Your task to perform on an android device: open chrome privacy settings Image 0: 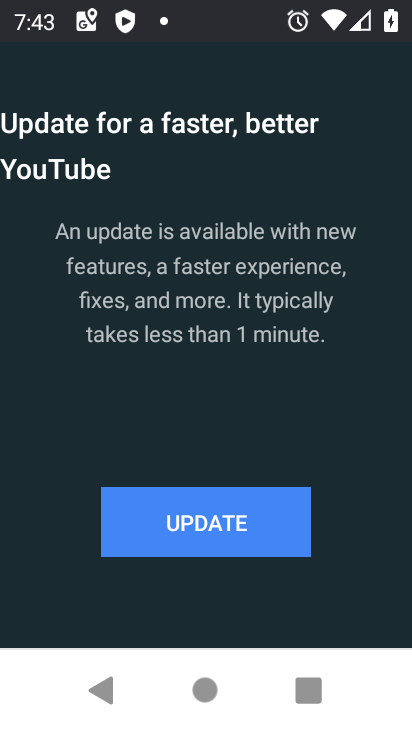
Step 0: press home button
Your task to perform on an android device: open chrome privacy settings Image 1: 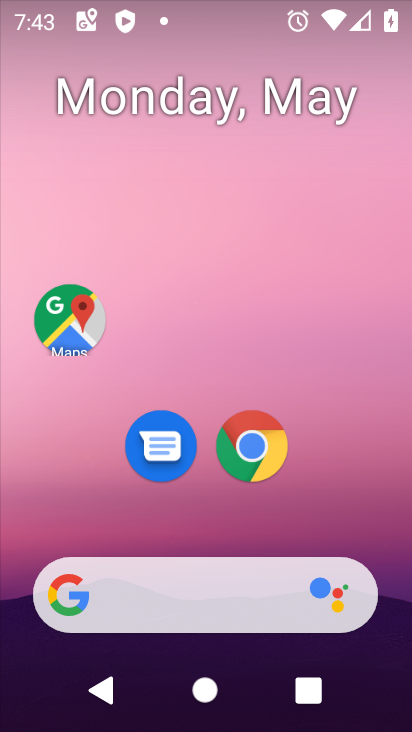
Step 1: click (261, 457)
Your task to perform on an android device: open chrome privacy settings Image 2: 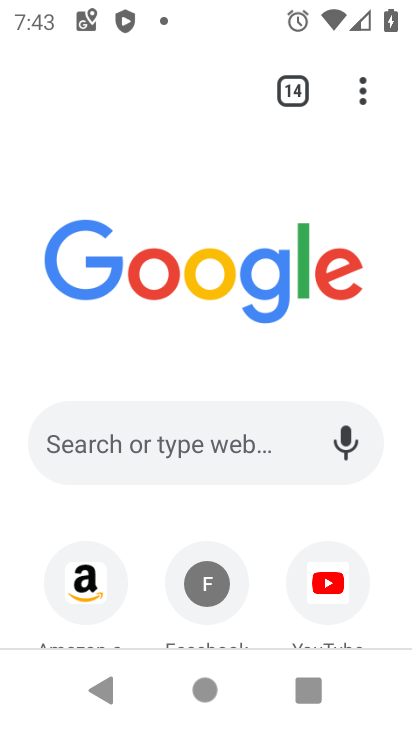
Step 2: click (361, 87)
Your task to perform on an android device: open chrome privacy settings Image 3: 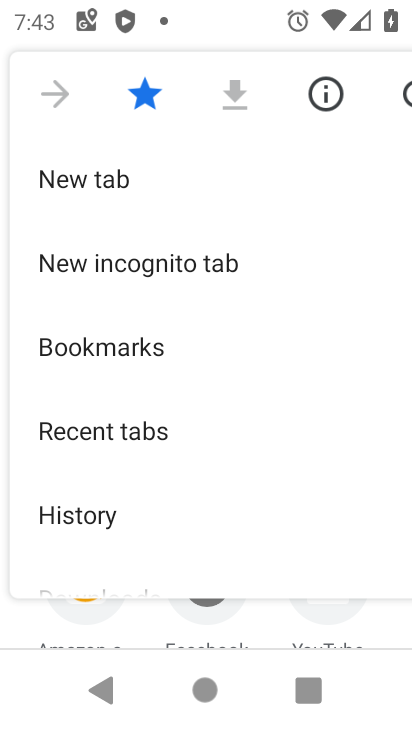
Step 3: drag from (236, 460) to (191, 139)
Your task to perform on an android device: open chrome privacy settings Image 4: 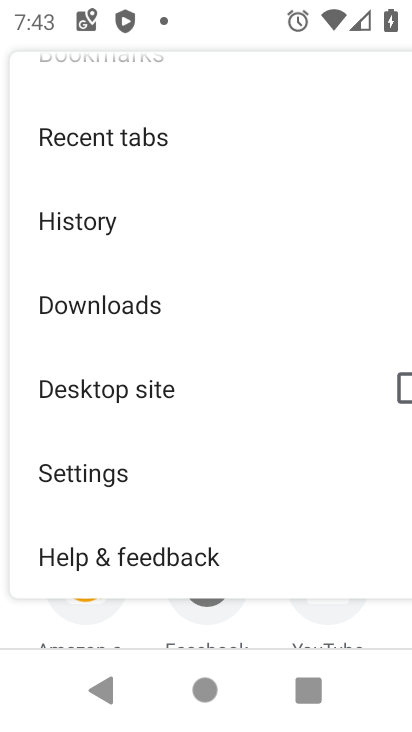
Step 4: click (66, 476)
Your task to perform on an android device: open chrome privacy settings Image 5: 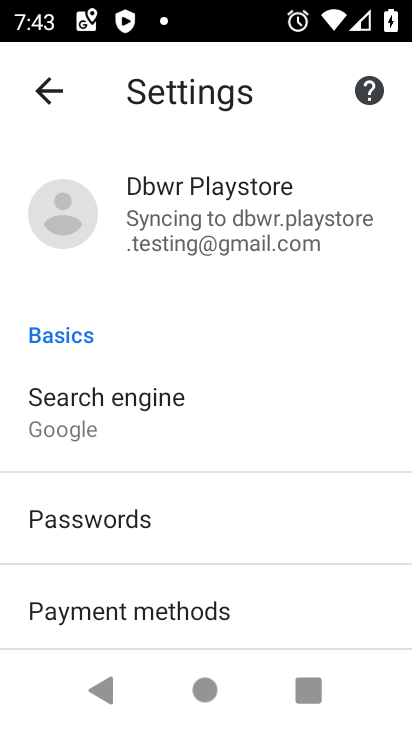
Step 5: drag from (212, 527) to (173, 239)
Your task to perform on an android device: open chrome privacy settings Image 6: 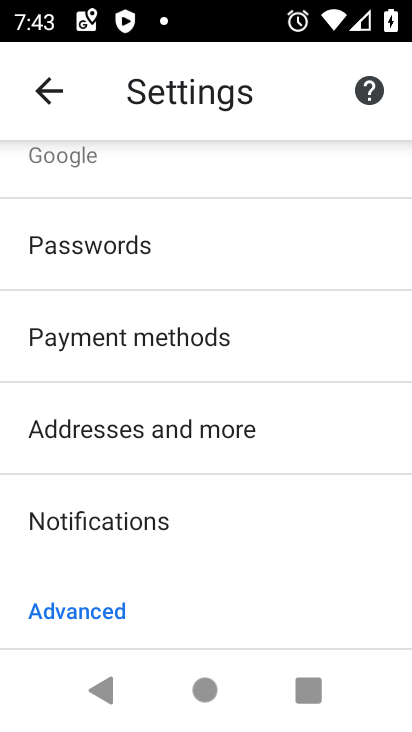
Step 6: drag from (247, 454) to (208, 222)
Your task to perform on an android device: open chrome privacy settings Image 7: 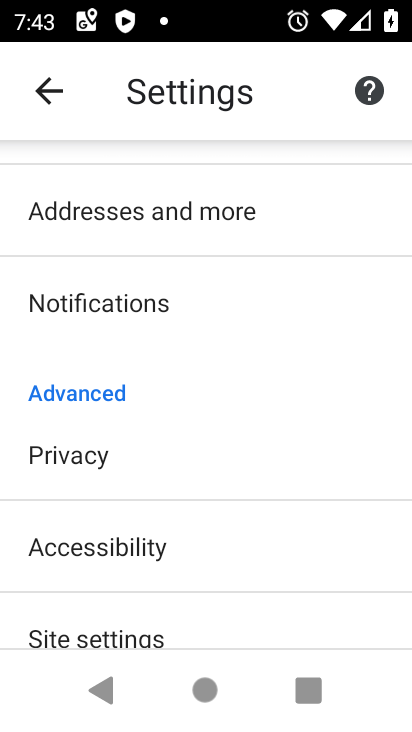
Step 7: click (87, 461)
Your task to perform on an android device: open chrome privacy settings Image 8: 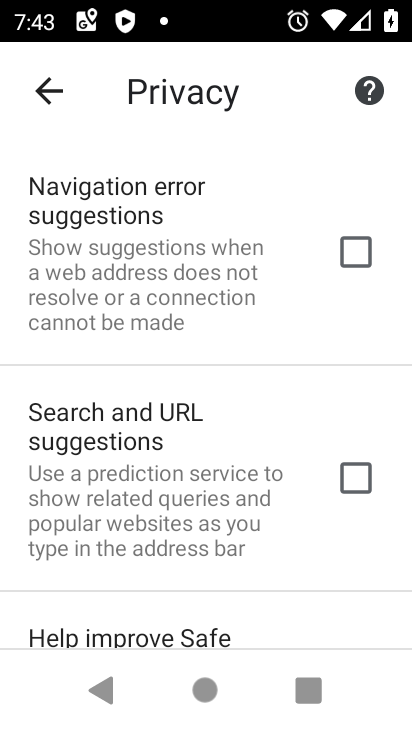
Step 8: task complete